Your task to perform on an android device: uninstall "Booking.com: Hotels and more" Image 0: 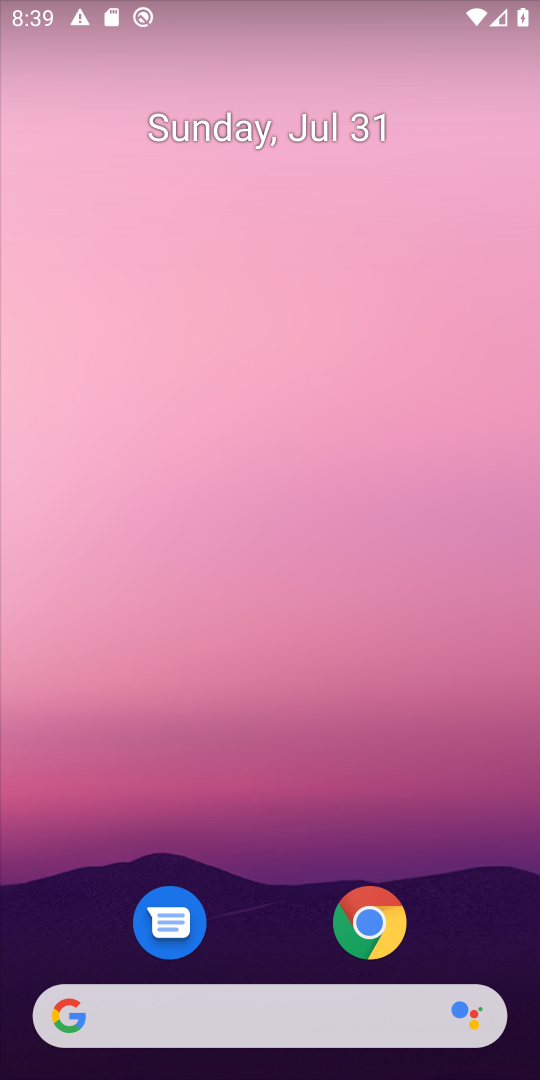
Step 0: drag from (268, 1045) to (227, 367)
Your task to perform on an android device: uninstall "Booking.com: Hotels and more" Image 1: 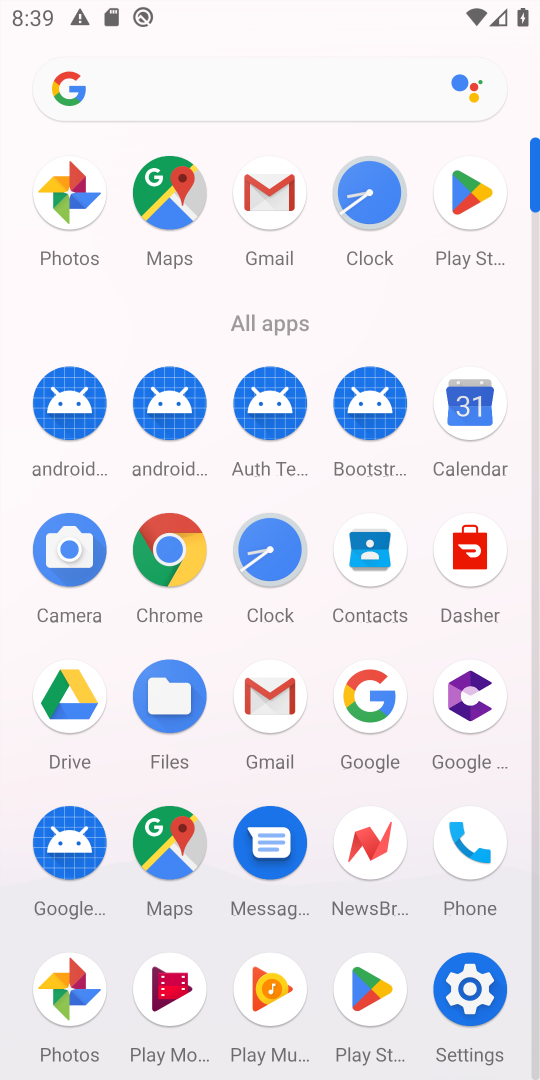
Step 1: click (374, 984)
Your task to perform on an android device: uninstall "Booking.com: Hotels and more" Image 2: 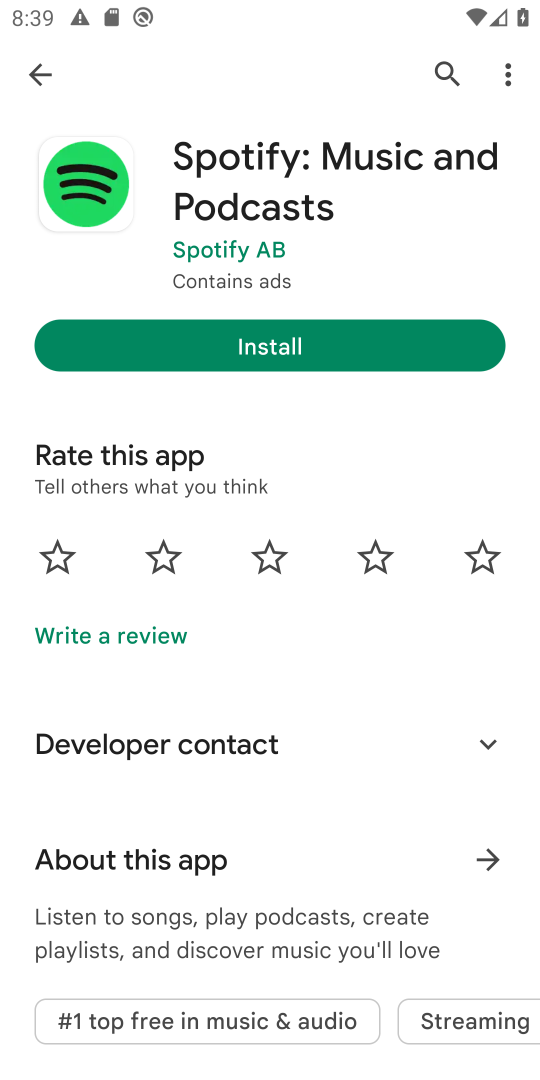
Step 2: click (442, 71)
Your task to perform on an android device: uninstall "Booking.com: Hotels and more" Image 3: 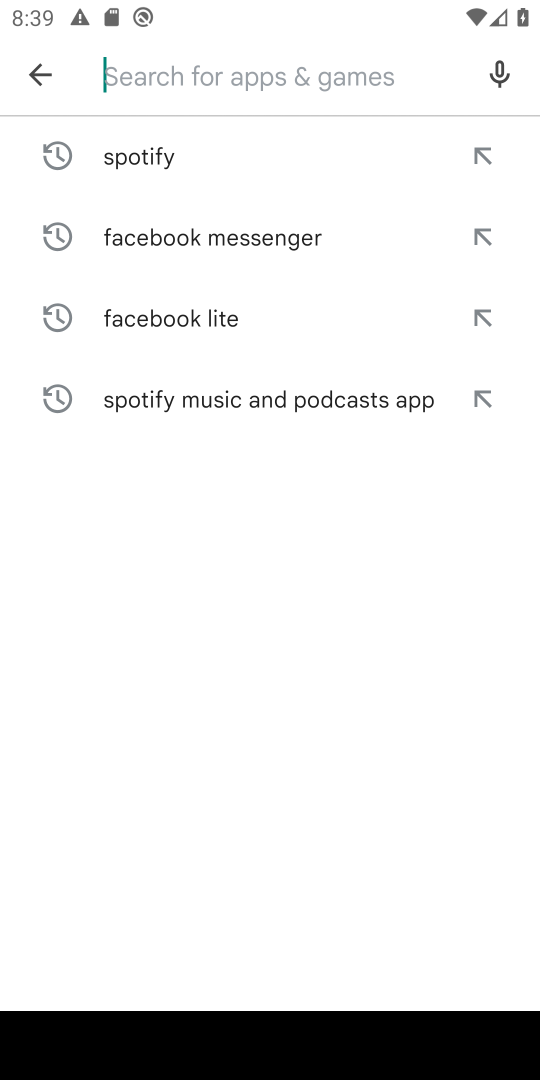
Step 3: type "Booking.com: Hotels and more"
Your task to perform on an android device: uninstall "Booking.com: Hotels and more" Image 4: 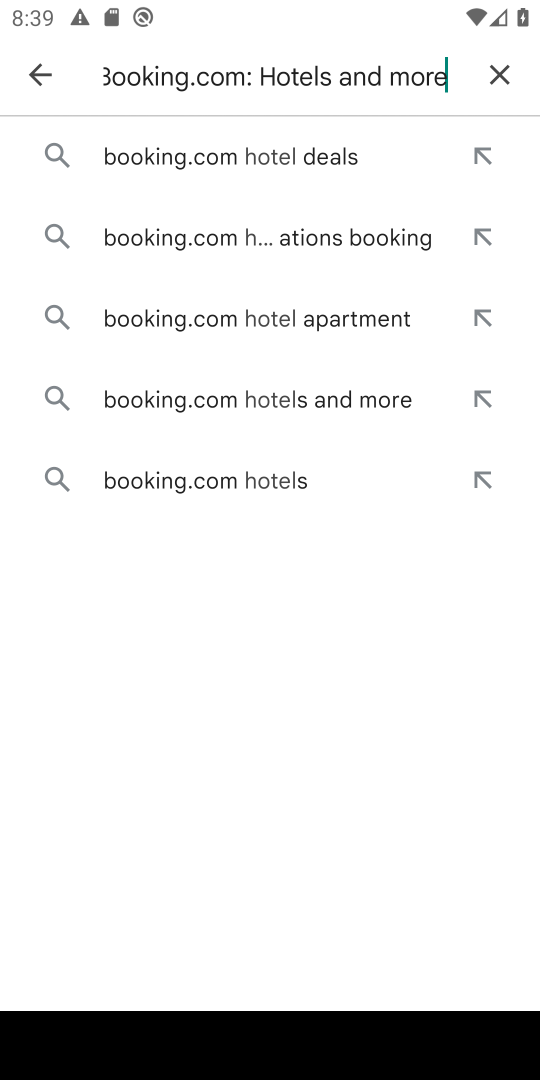
Step 4: type ""
Your task to perform on an android device: uninstall "Booking.com: Hotels and more" Image 5: 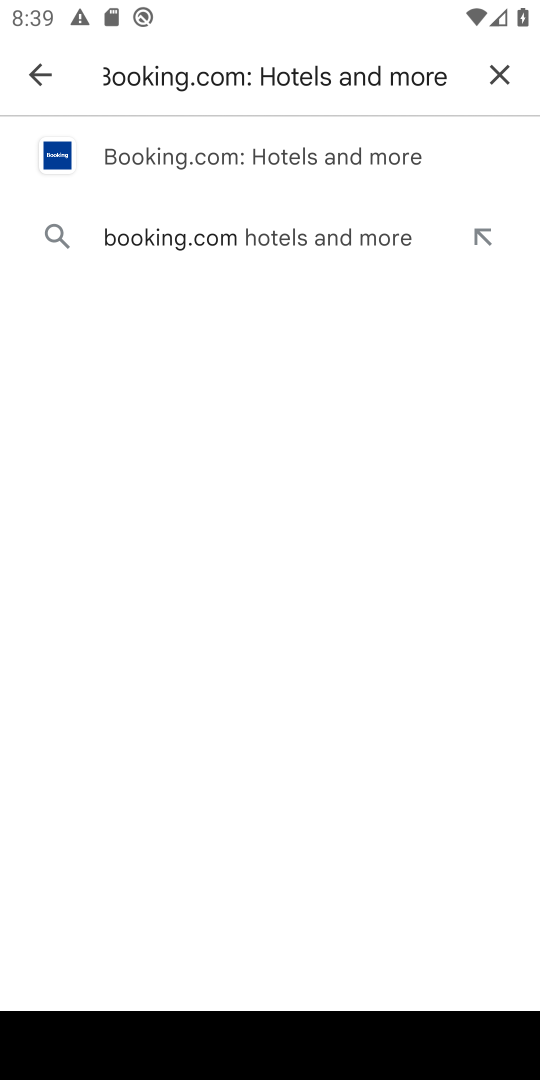
Step 5: click (191, 153)
Your task to perform on an android device: uninstall "Booking.com: Hotels and more" Image 6: 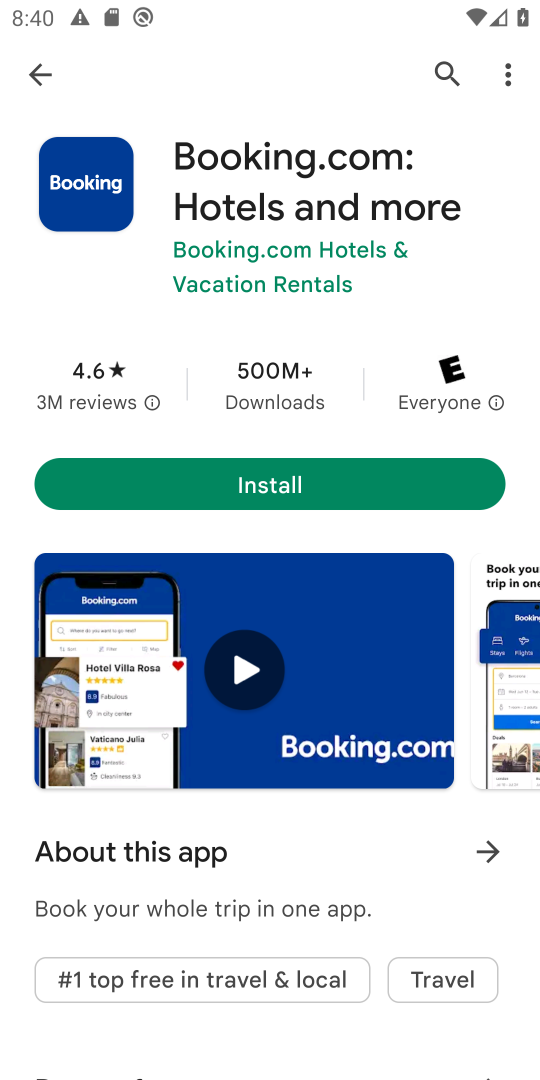
Step 6: task complete